Your task to perform on an android device: turn on javascript in the chrome app Image 0: 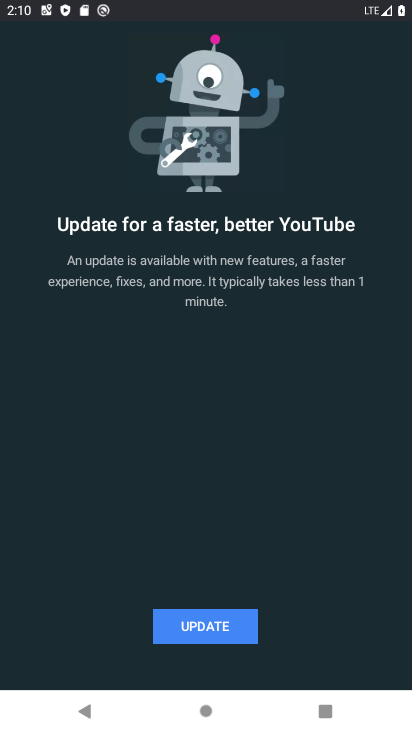
Step 0: press home button
Your task to perform on an android device: turn on javascript in the chrome app Image 1: 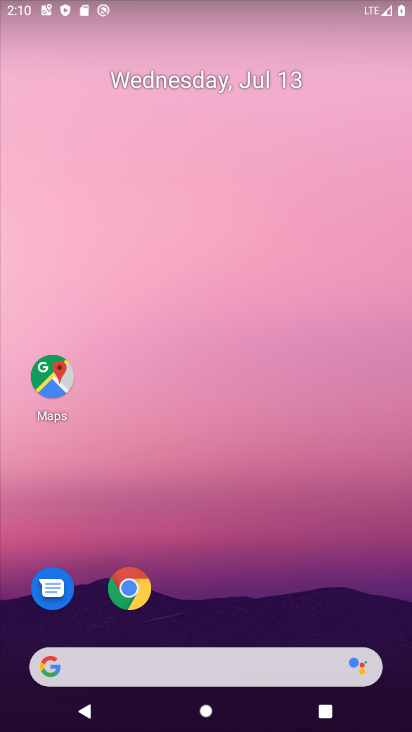
Step 1: click (123, 584)
Your task to perform on an android device: turn on javascript in the chrome app Image 2: 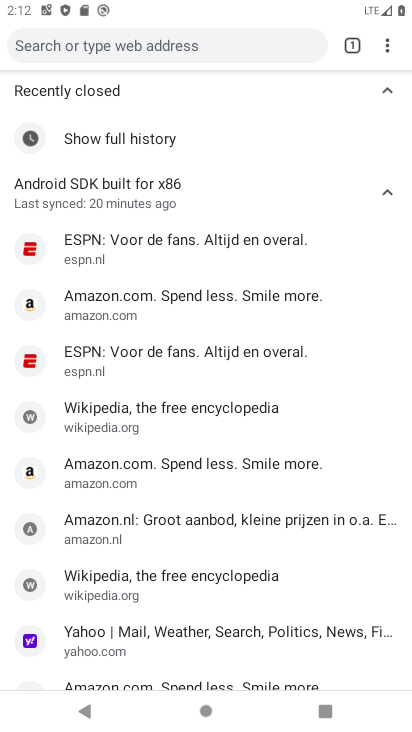
Step 2: click (384, 39)
Your task to perform on an android device: turn on javascript in the chrome app Image 3: 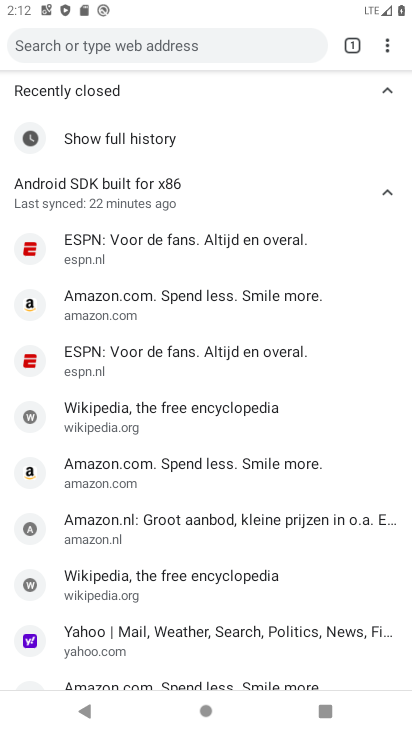
Step 3: click (386, 49)
Your task to perform on an android device: turn on javascript in the chrome app Image 4: 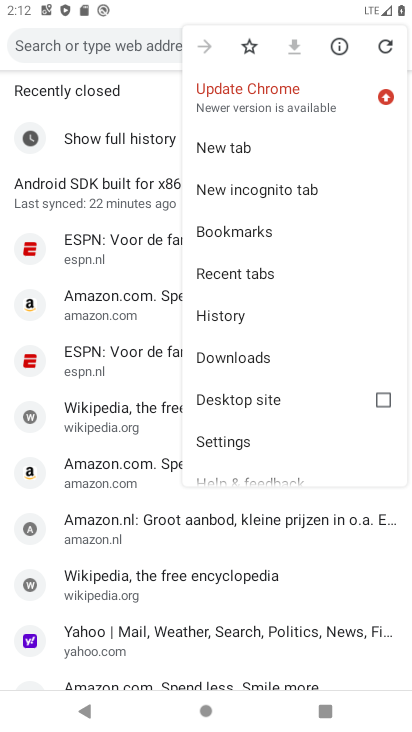
Step 4: click (228, 439)
Your task to perform on an android device: turn on javascript in the chrome app Image 5: 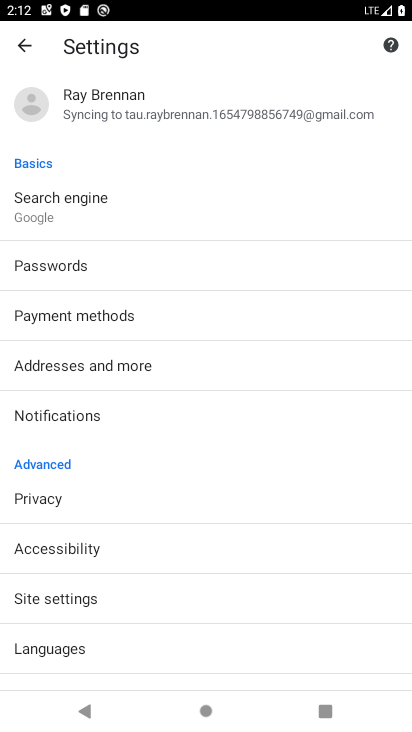
Step 5: click (56, 599)
Your task to perform on an android device: turn on javascript in the chrome app Image 6: 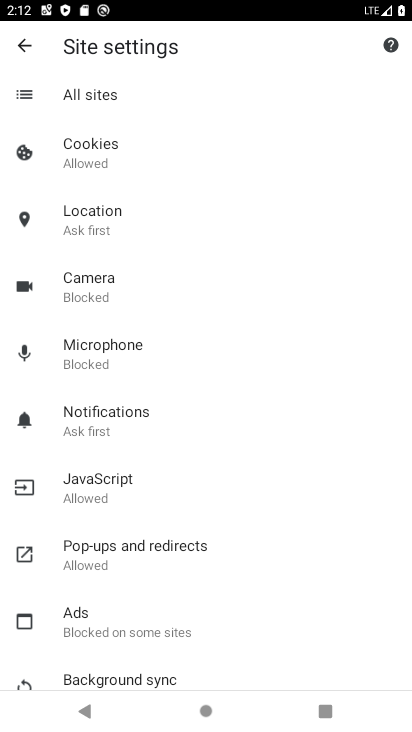
Step 6: click (87, 478)
Your task to perform on an android device: turn on javascript in the chrome app Image 7: 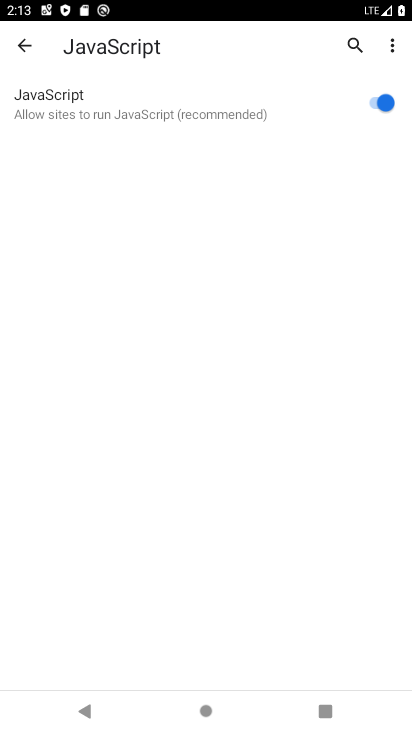
Step 7: task complete